Your task to perform on an android device: Go to Wikipedia Image 0: 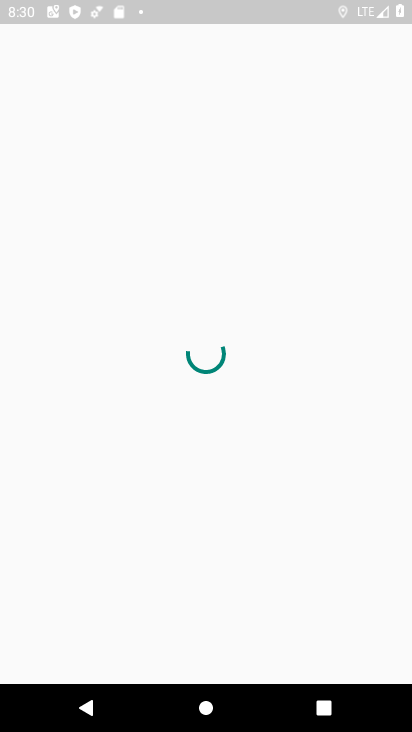
Step 0: press home button
Your task to perform on an android device: Go to Wikipedia Image 1: 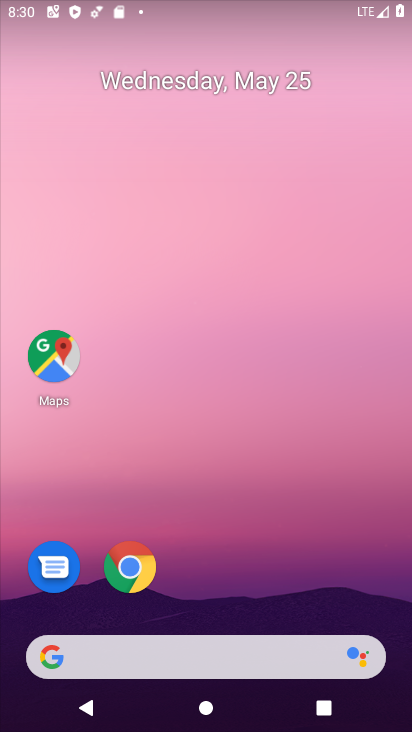
Step 1: click (130, 565)
Your task to perform on an android device: Go to Wikipedia Image 2: 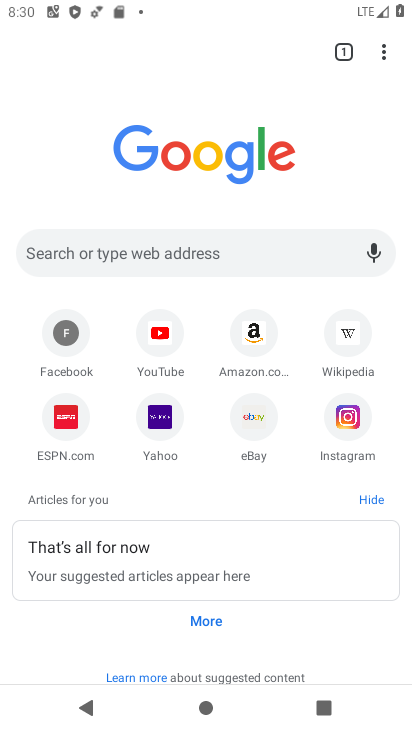
Step 2: click (349, 341)
Your task to perform on an android device: Go to Wikipedia Image 3: 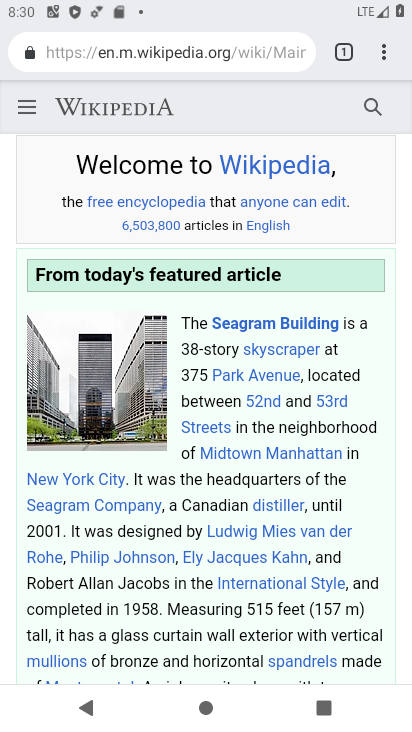
Step 3: task complete